Your task to perform on an android device: install app "Spotify" Image 0: 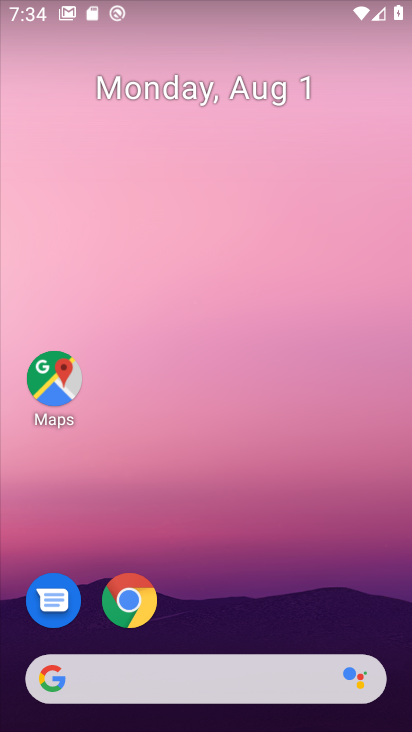
Step 0: drag from (198, 515) to (216, 0)
Your task to perform on an android device: install app "Spotify" Image 1: 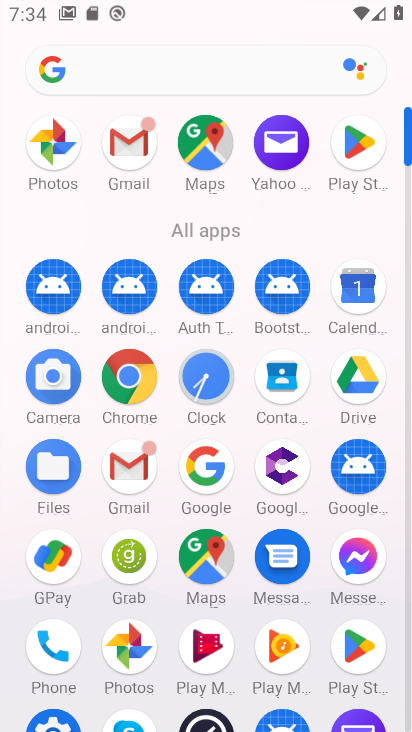
Step 1: click (354, 150)
Your task to perform on an android device: install app "Spotify" Image 2: 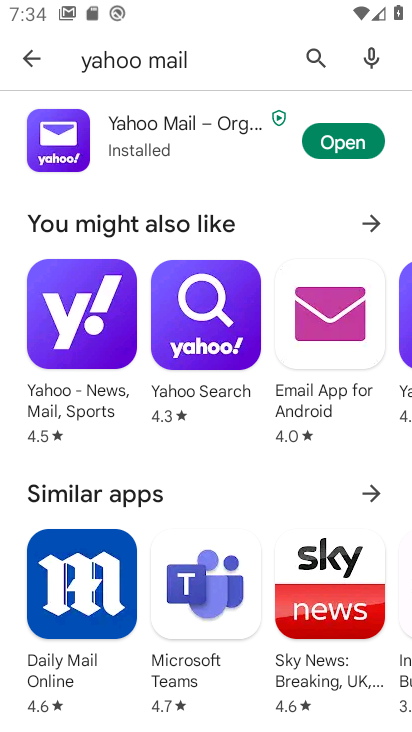
Step 2: click (29, 66)
Your task to perform on an android device: install app "Spotify" Image 3: 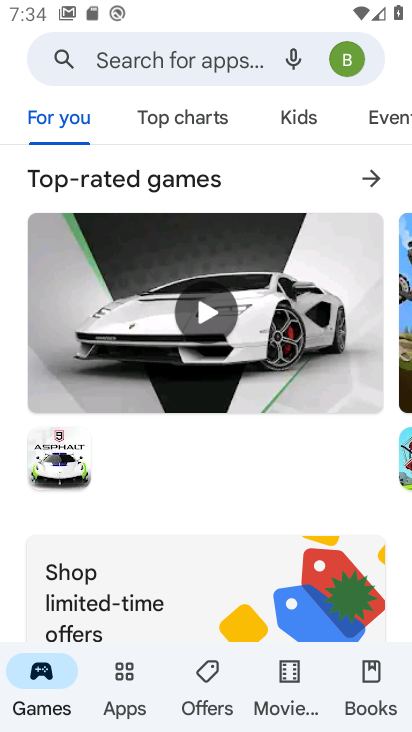
Step 3: click (167, 66)
Your task to perform on an android device: install app "Spotify" Image 4: 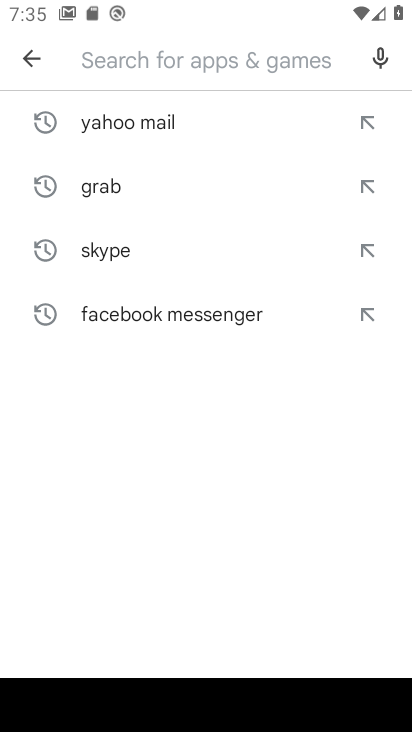
Step 4: type "Spotify"
Your task to perform on an android device: install app "Spotify" Image 5: 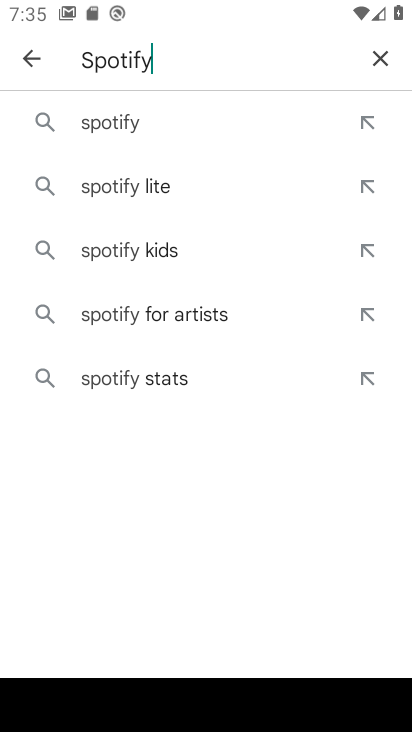
Step 5: click (108, 126)
Your task to perform on an android device: install app "Spotify" Image 6: 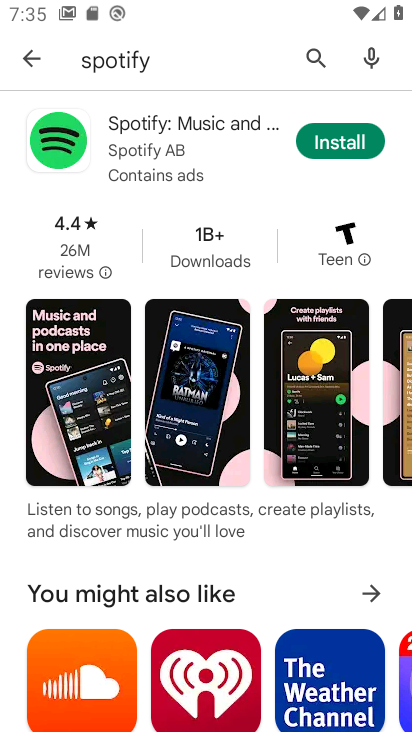
Step 6: click (331, 153)
Your task to perform on an android device: install app "Spotify" Image 7: 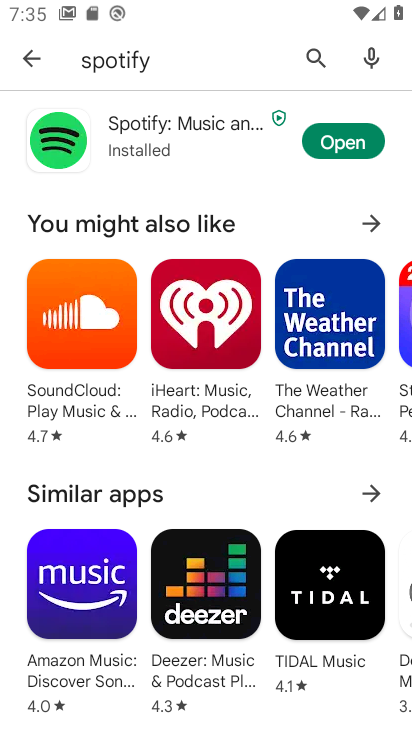
Step 7: click (331, 153)
Your task to perform on an android device: install app "Spotify" Image 8: 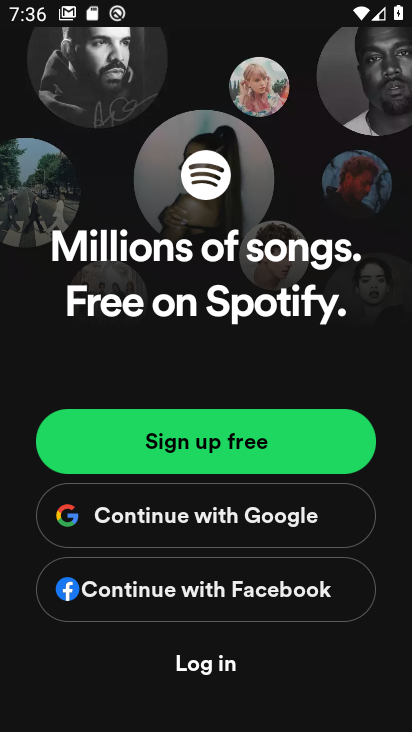
Step 8: task complete